Your task to perform on an android device: Open calendar and show me the first week of next month Image 0: 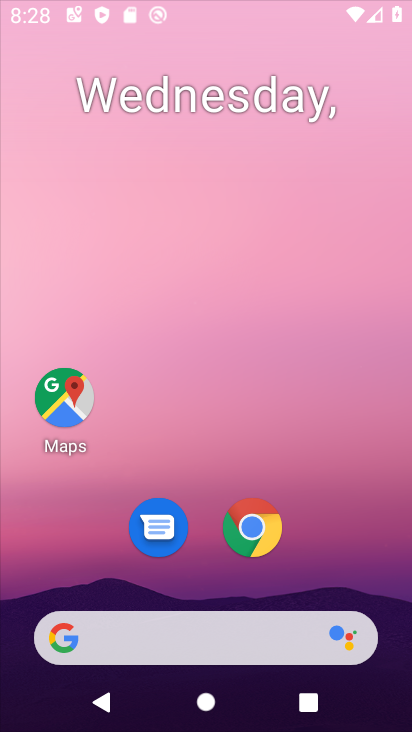
Step 0: drag from (353, 550) to (318, 137)
Your task to perform on an android device: Open calendar and show me the first week of next month Image 1: 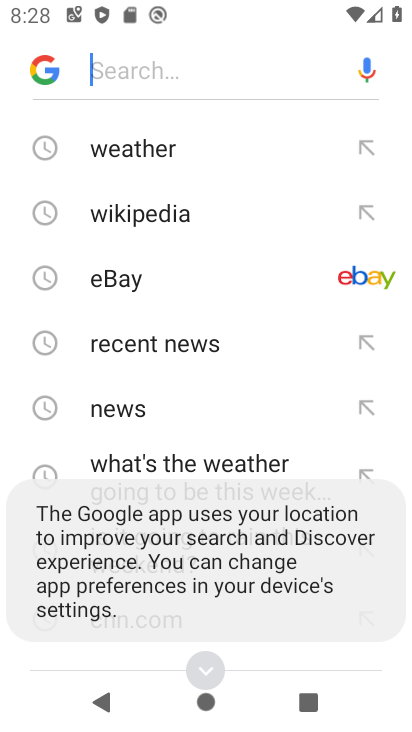
Step 1: press home button
Your task to perform on an android device: Open calendar and show me the first week of next month Image 2: 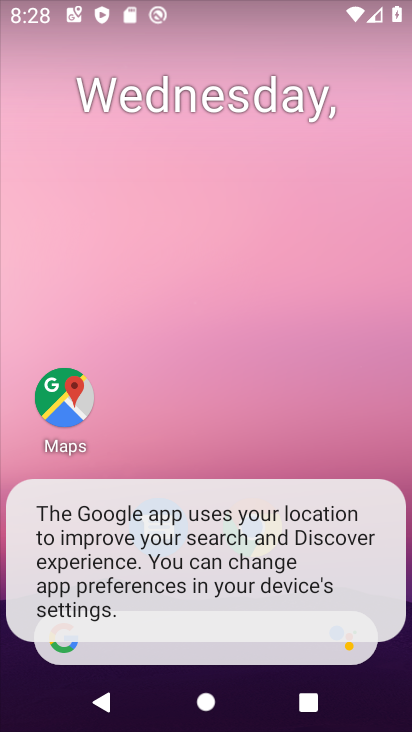
Step 2: drag from (341, 466) to (310, 0)
Your task to perform on an android device: Open calendar and show me the first week of next month Image 3: 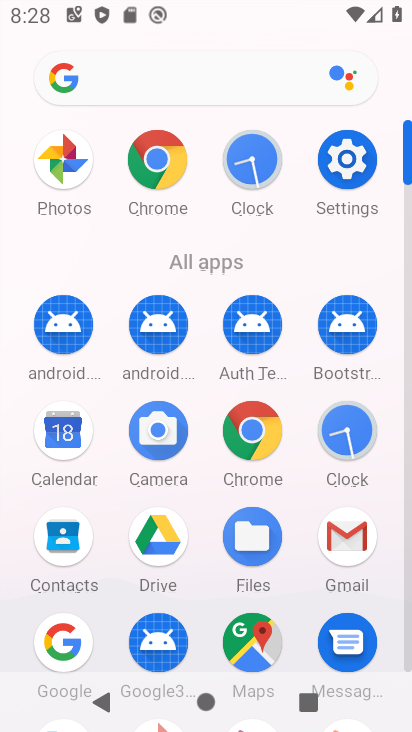
Step 3: click (69, 440)
Your task to perform on an android device: Open calendar and show me the first week of next month Image 4: 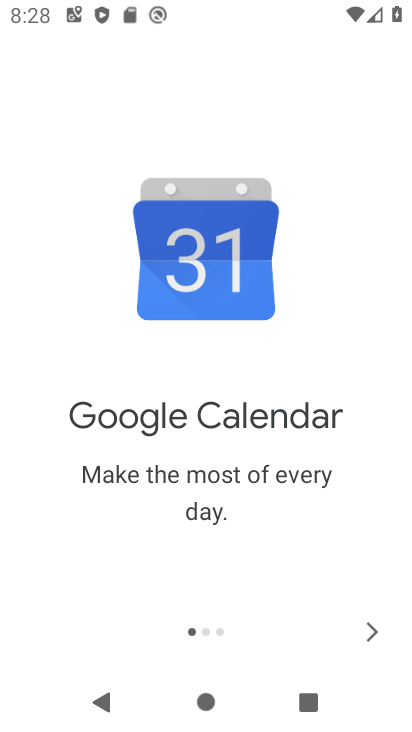
Step 4: click (384, 633)
Your task to perform on an android device: Open calendar and show me the first week of next month Image 5: 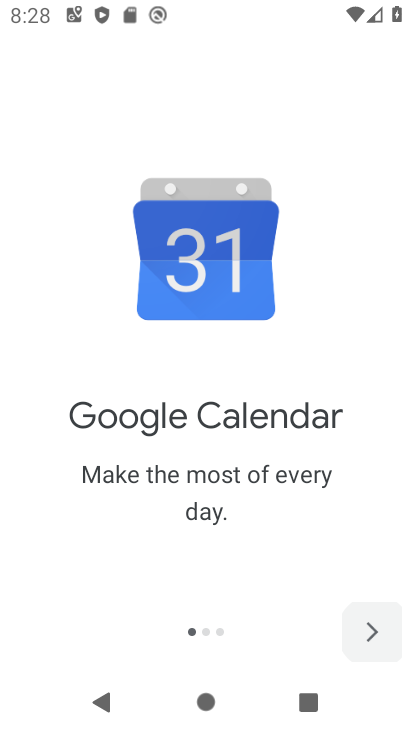
Step 5: click (384, 633)
Your task to perform on an android device: Open calendar and show me the first week of next month Image 6: 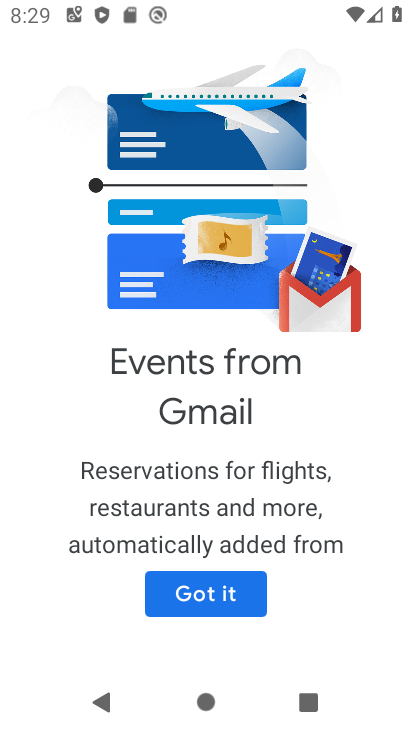
Step 6: click (150, 589)
Your task to perform on an android device: Open calendar and show me the first week of next month Image 7: 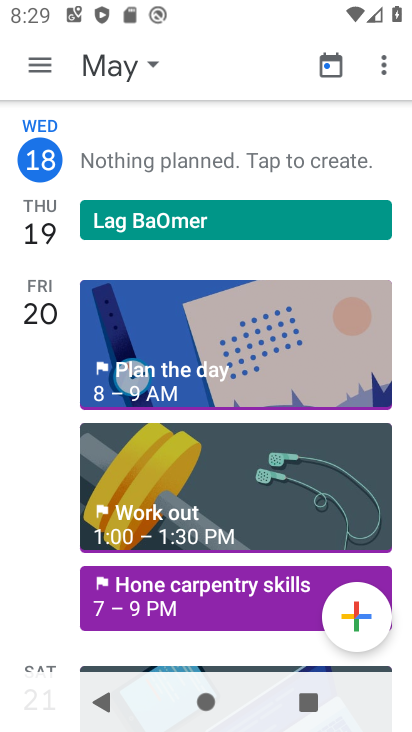
Step 7: click (113, 71)
Your task to perform on an android device: Open calendar and show me the first week of next month Image 8: 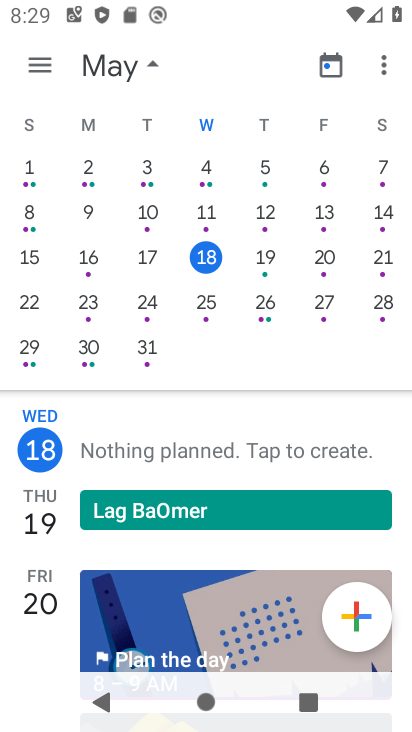
Step 8: drag from (357, 277) to (8, 256)
Your task to perform on an android device: Open calendar and show me the first week of next month Image 9: 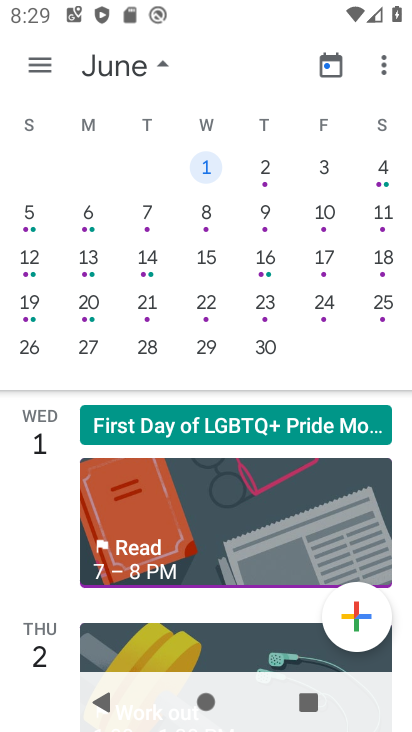
Step 9: click (207, 170)
Your task to perform on an android device: Open calendar and show me the first week of next month Image 10: 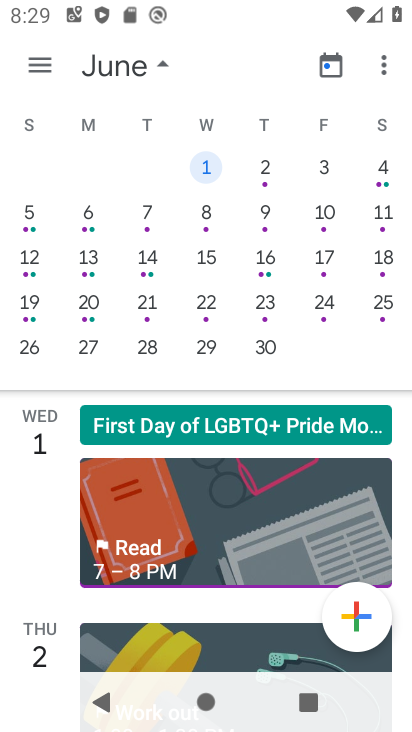
Step 10: click (44, 54)
Your task to perform on an android device: Open calendar and show me the first week of next month Image 11: 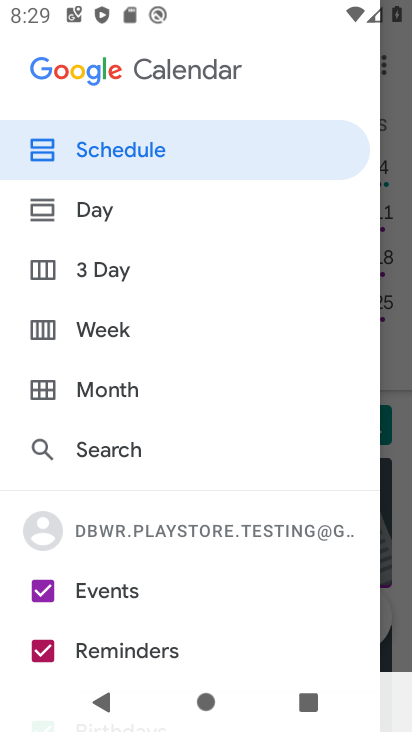
Step 11: click (91, 330)
Your task to perform on an android device: Open calendar and show me the first week of next month Image 12: 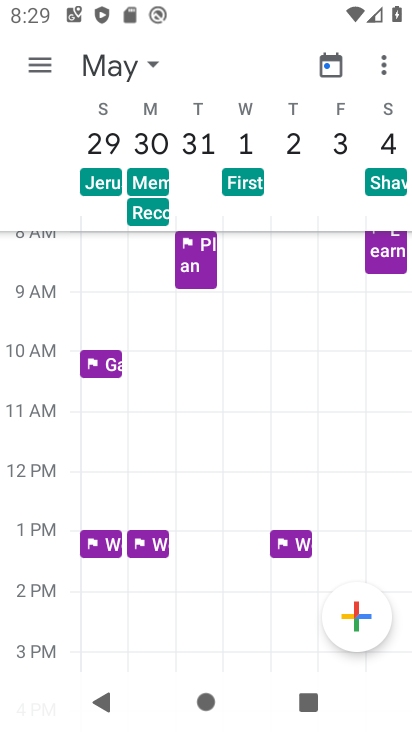
Step 12: task complete